Your task to perform on an android device: add a contact Image 0: 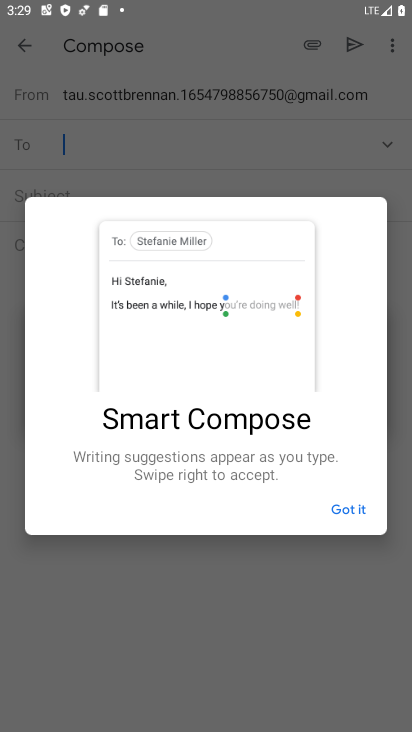
Step 0: press home button
Your task to perform on an android device: add a contact Image 1: 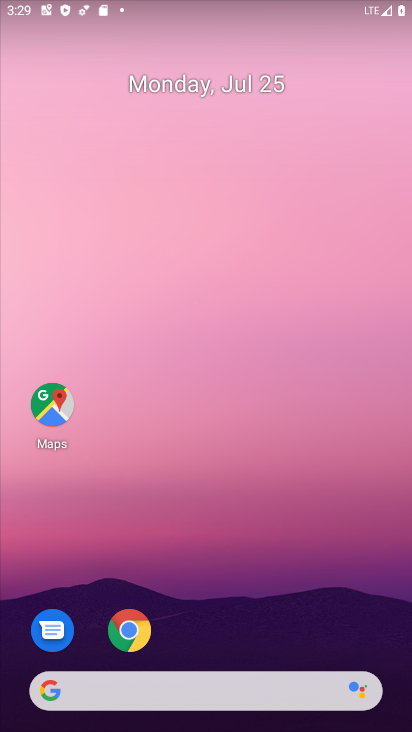
Step 1: drag from (221, 598) to (241, 0)
Your task to perform on an android device: add a contact Image 2: 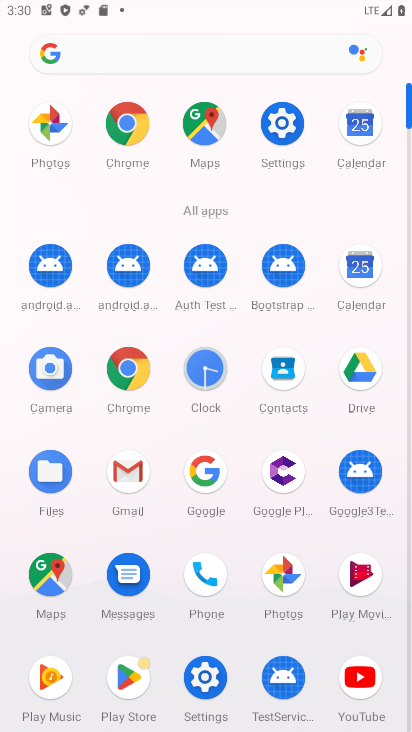
Step 2: click (293, 373)
Your task to perform on an android device: add a contact Image 3: 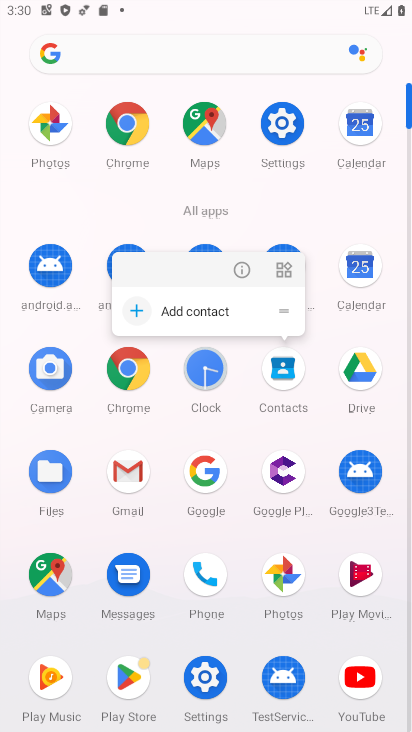
Step 3: click (285, 380)
Your task to perform on an android device: add a contact Image 4: 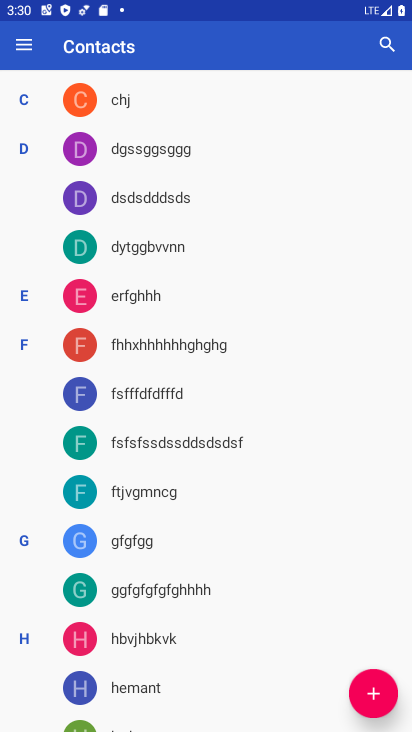
Step 4: click (371, 691)
Your task to perform on an android device: add a contact Image 5: 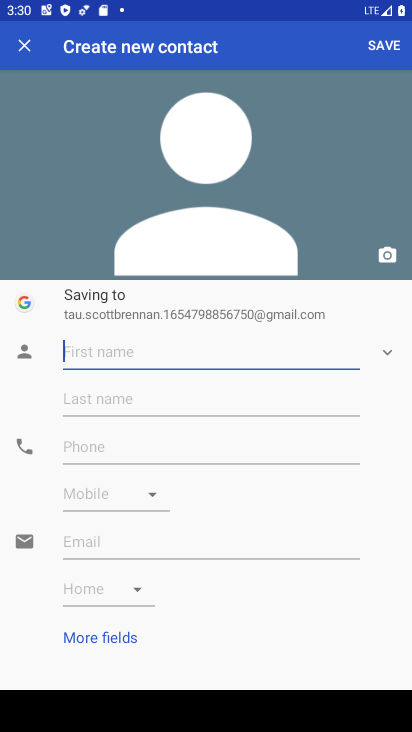
Step 5: type "flock"
Your task to perform on an android device: add a contact Image 6: 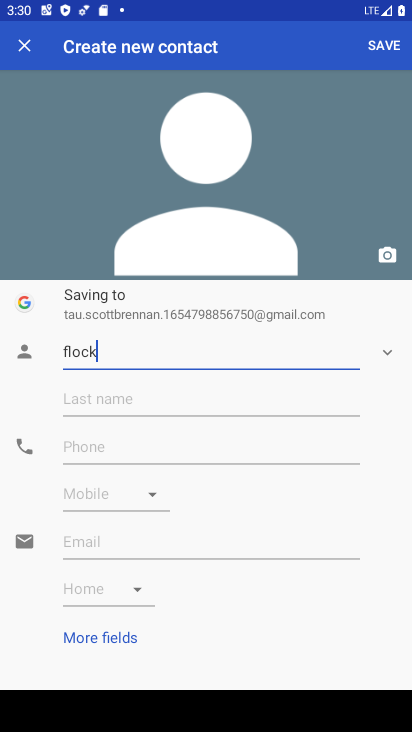
Step 6: click (377, 48)
Your task to perform on an android device: add a contact Image 7: 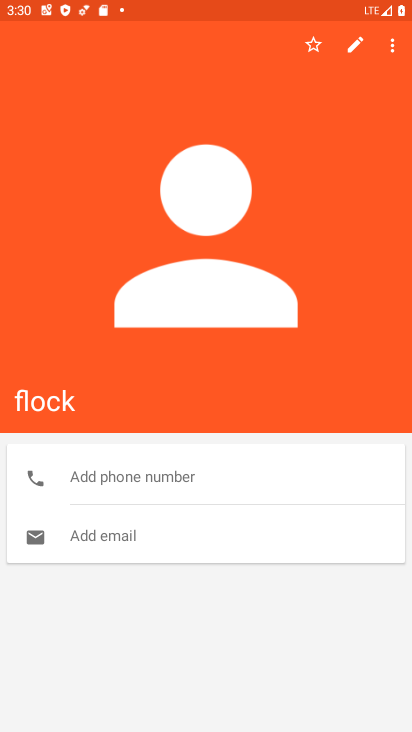
Step 7: task complete